Your task to perform on an android device: open app "Upside-Cash back on gas & food" Image 0: 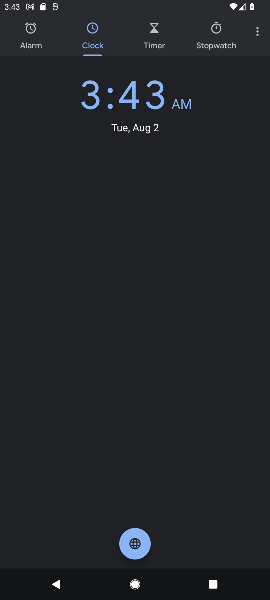
Step 0: press home button
Your task to perform on an android device: open app "Upside-Cash back on gas & food" Image 1: 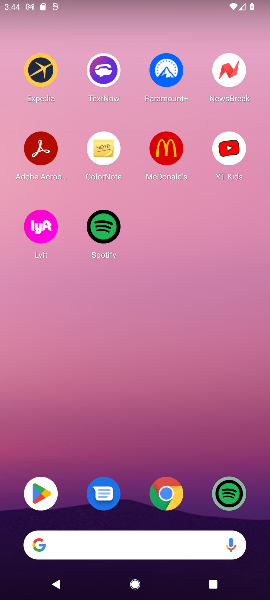
Step 1: click (44, 494)
Your task to perform on an android device: open app "Upside-Cash back on gas & food" Image 2: 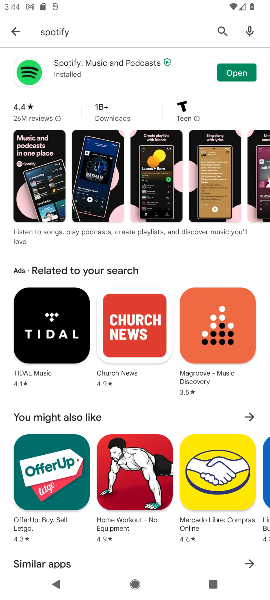
Step 2: click (219, 29)
Your task to perform on an android device: open app "Upside-Cash back on gas & food" Image 3: 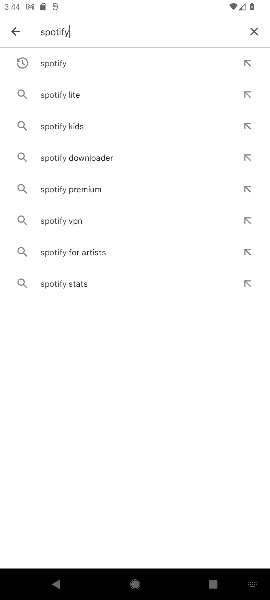
Step 3: click (252, 29)
Your task to perform on an android device: open app "Upside-Cash back on gas & food" Image 4: 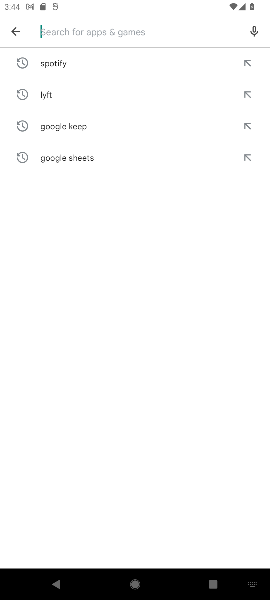
Step 4: type "upside - cash back on gas & food"
Your task to perform on an android device: open app "Upside-Cash back on gas & food" Image 5: 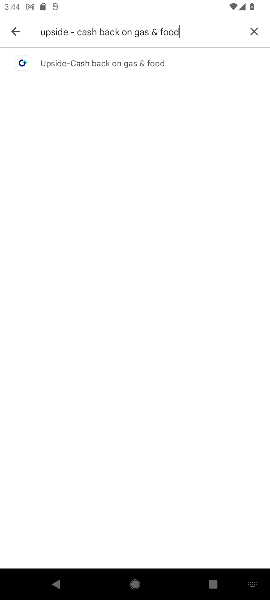
Step 5: click (102, 62)
Your task to perform on an android device: open app "Upside-Cash back on gas & food" Image 6: 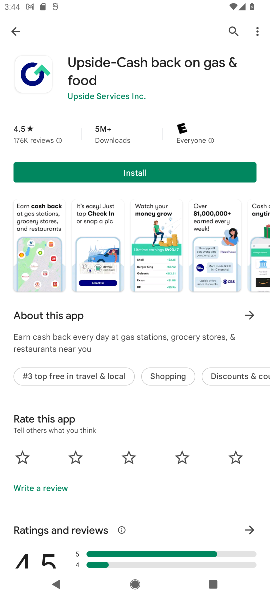
Step 6: task complete